Your task to perform on an android device: Go to Maps Image 0: 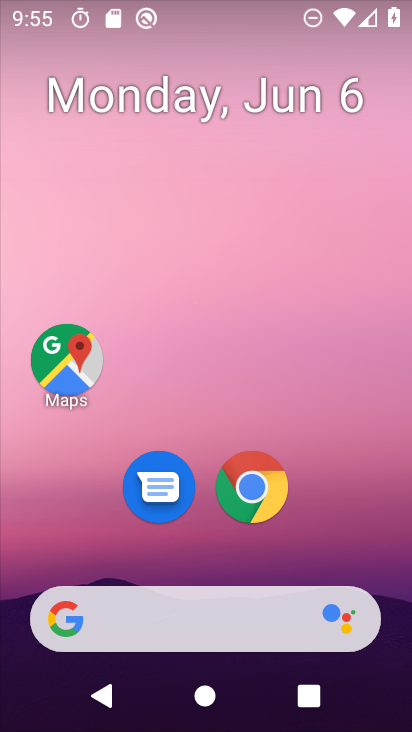
Step 0: drag from (379, 437) to (314, 51)
Your task to perform on an android device: Go to Maps Image 1: 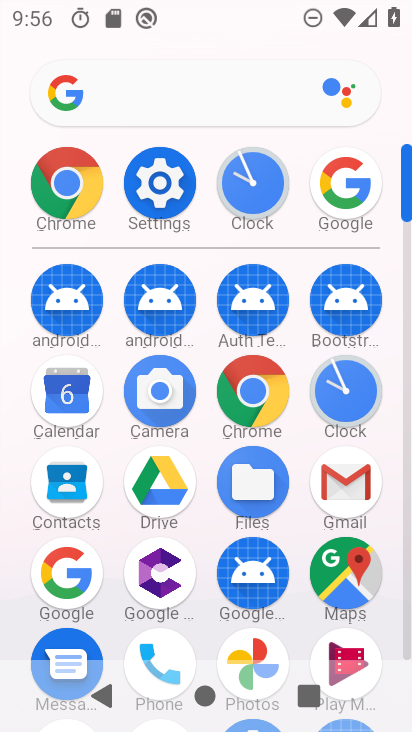
Step 1: click (344, 571)
Your task to perform on an android device: Go to Maps Image 2: 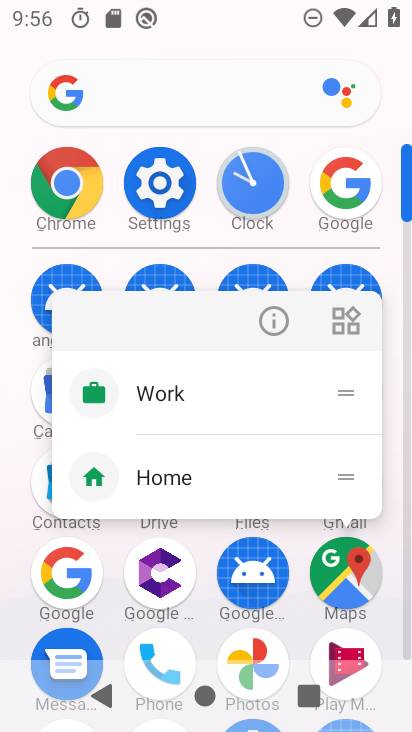
Step 2: click (344, 571)
Your task to perform on an android device: Go to Maps Image 3: 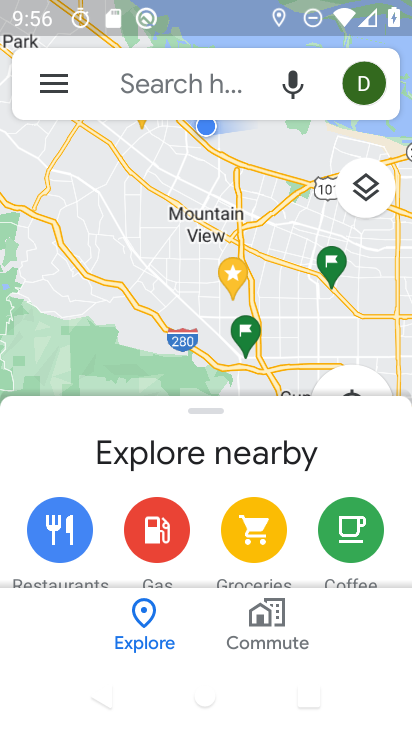
Step 3: task complete